Your task to perform on an android device: Open Google Maps Image 0: 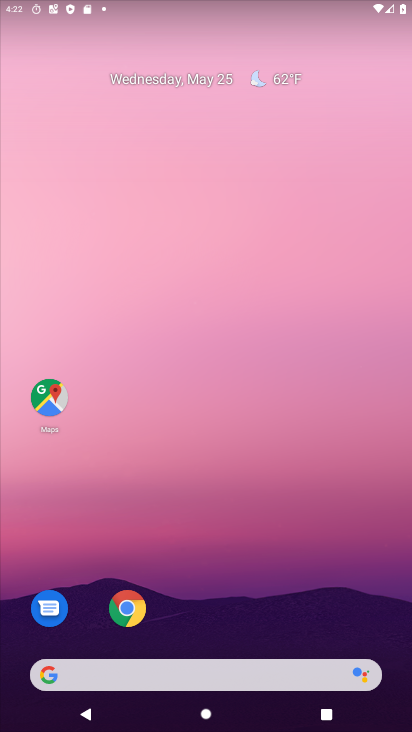
Step 0: click (49, 398)
Your task to perform on an android device: Open Google Maps Image 1: 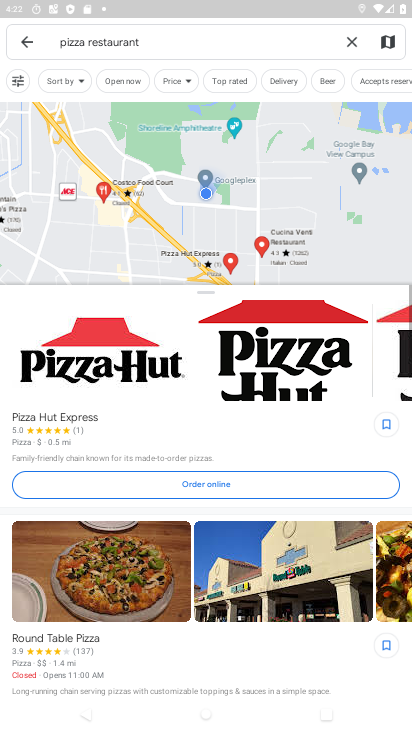
Step 1: click (351, 38)
Your task to perform on an android device: Open Google Maps Image 2: 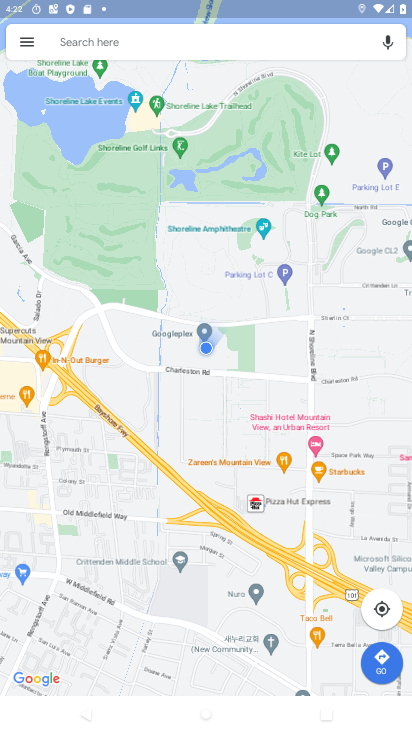
Step 2: task complete